Your task to perform on an android device: set the stopwatch Image 0: 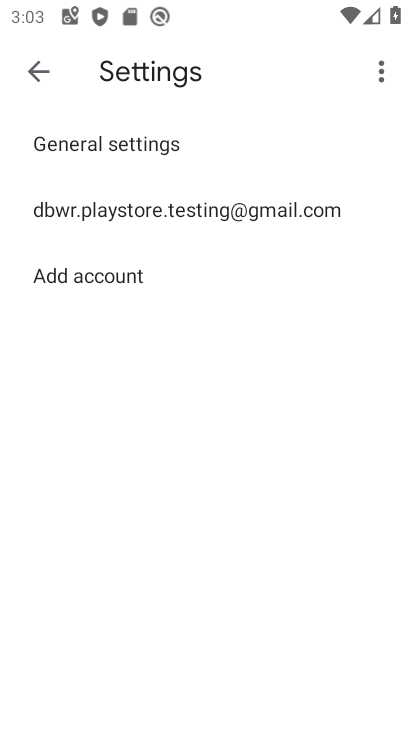
Step 0: press back button
Your task to perform on an android device: set the stopwatch Image 1: 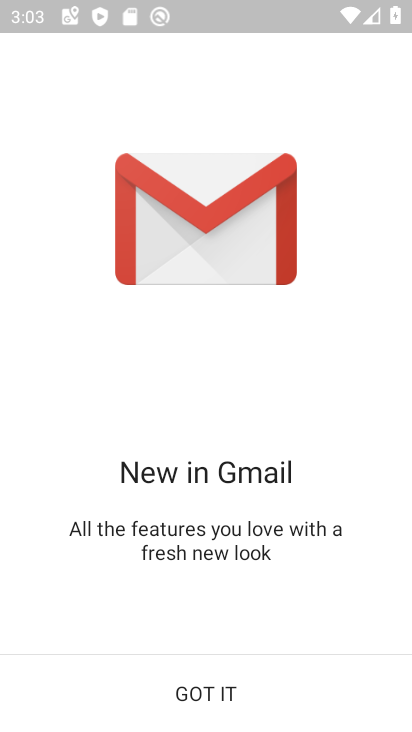
Step 1: press home button
Your task to perform on an android device: set the stopwatch Image 2: 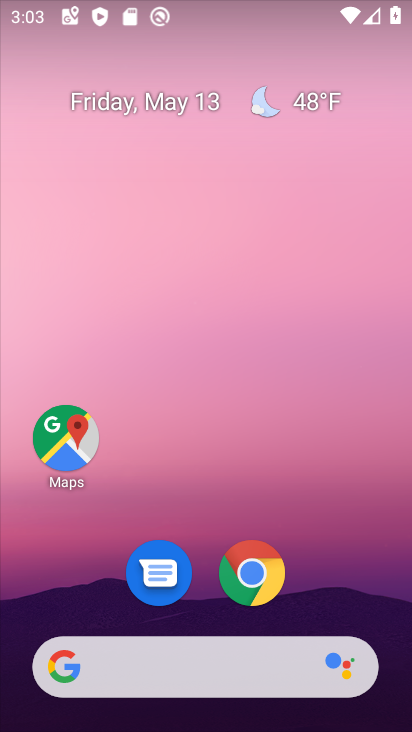
Step 2: drag from (158, 610) to (301, 2)
Your task to perform on an android device: set the stopwatch Image 3: 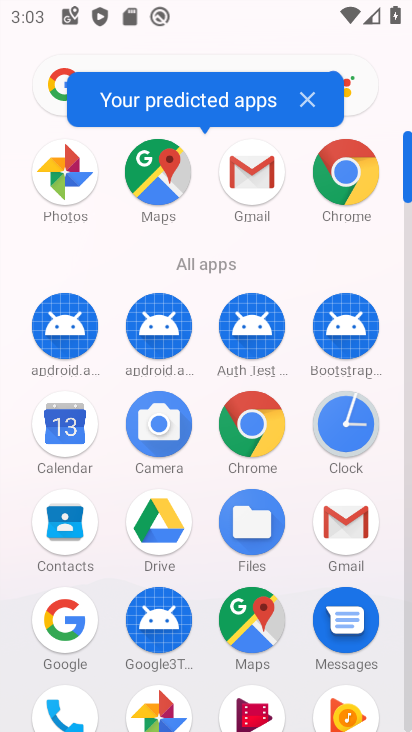
Step 3: click (336, 408)
Your task to perform on an android device: set the stopwatch Image 4: 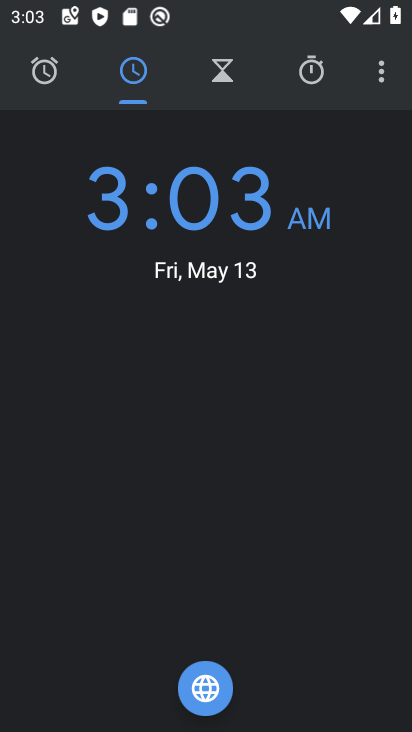
Step 4: click (317, 89)
Your task to perform on an android device: set the stopwatch Image 5: 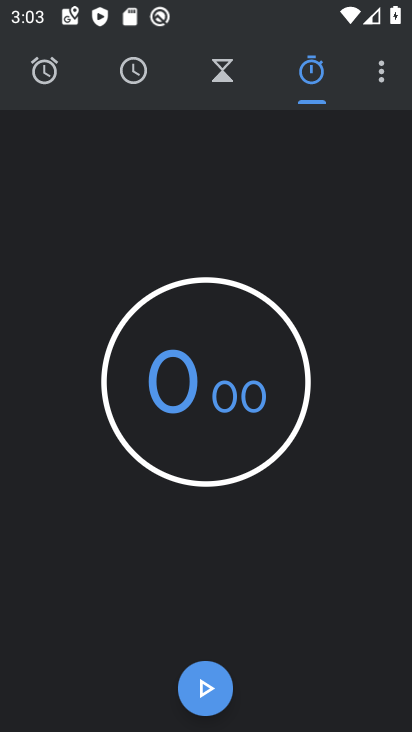
Step 5: click (195, 707)
Your task to perform on an android device: set the stopwatch Image 6: 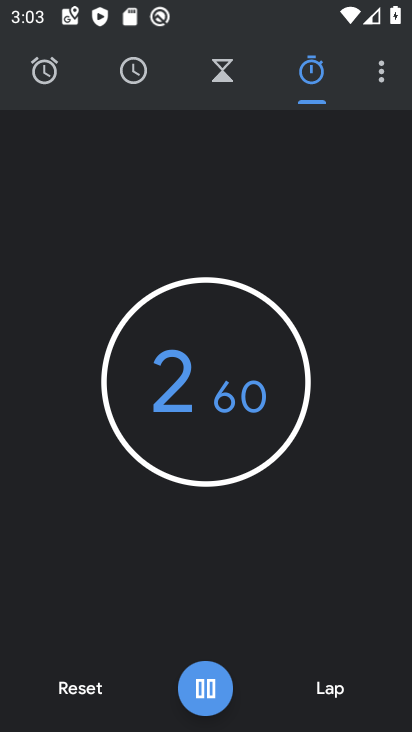
Step 6: task complete